Your task to perform on an android device: stop showing notifications on the lock screen Image 0: 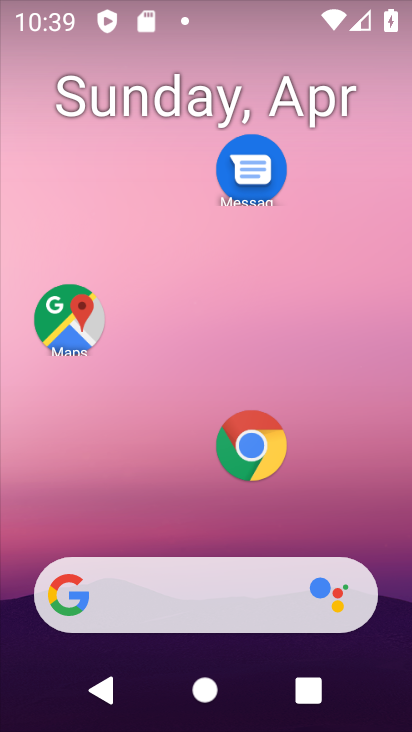
Step 0: press home button
Your task to perform on an android device: stop showing notifications on the lock screen Image 1: 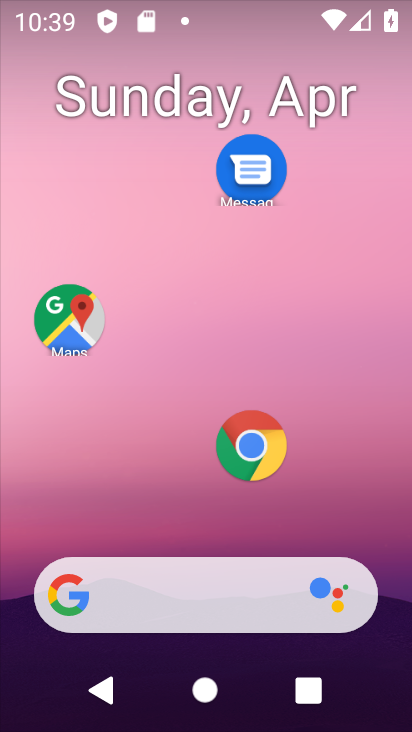
Step 1: drag from (173, 593) to (324, 83)
Your task to perform on an android device: stop showing notifications on the lock screen Image 2: 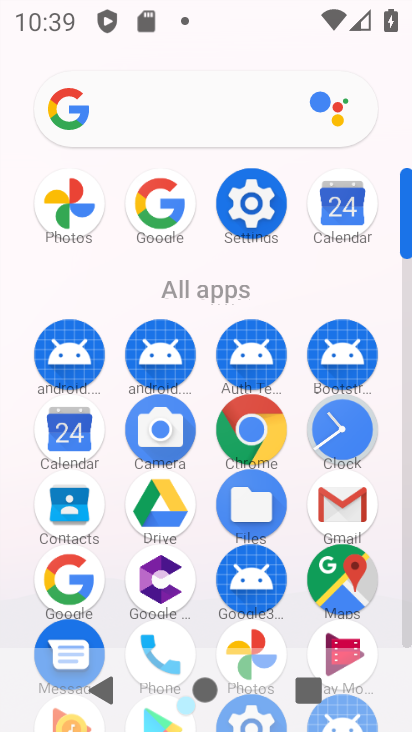
Step 2: click (264, 218)
Your task to perform on an android device: stop showing notifications on the lock screen Image 3: 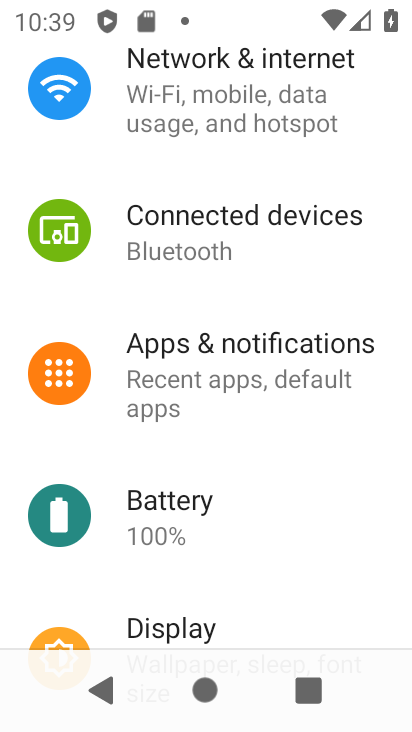
Step 3: click (262, 370)
Your task to perform on an android device: stop showing notifications on the lock screen Image 4: 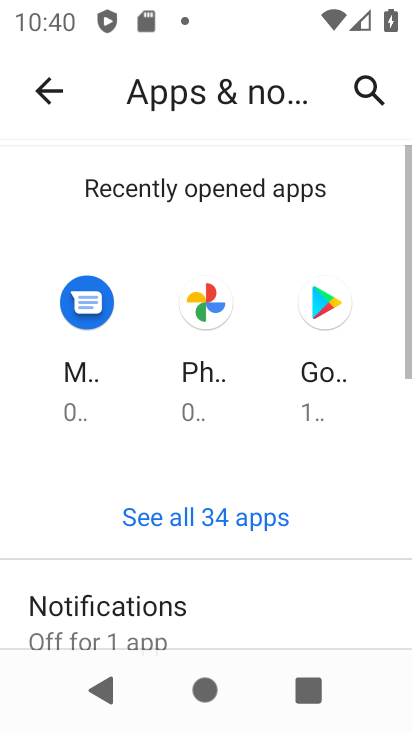
Step 4: drag from (149, 584) to (316, 222)
Your task to perform on an android device: stop showing notifications on the lock screen Image 5: 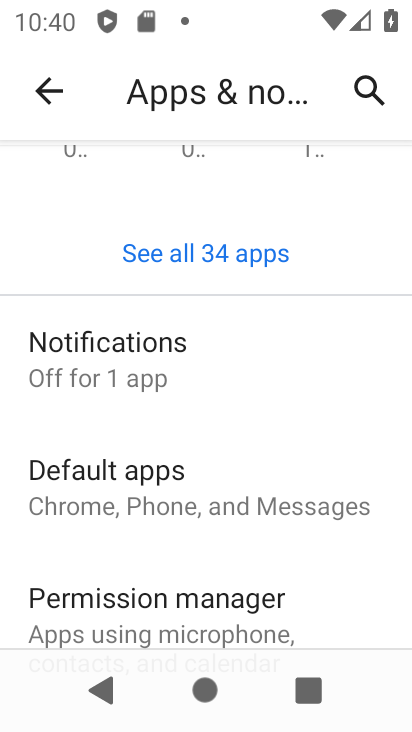
Step 5: click (171, 363)
Your task to perform on an android device: stop showing notifications on the lock screen Image 6: 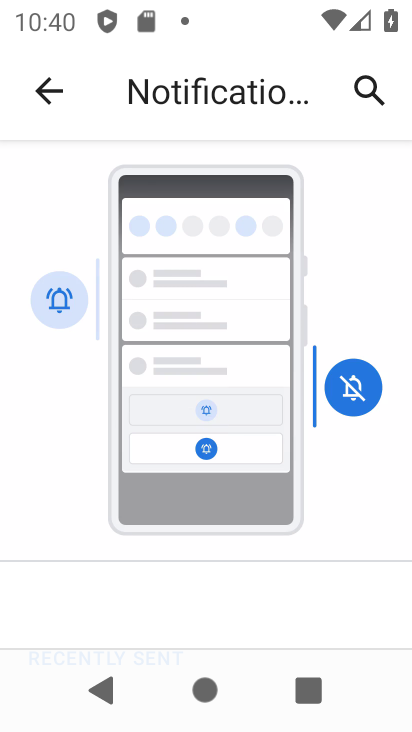
Step 6: drag from (203, 595) to (352, 148)
Your task to perform on an android device: stop showing notifications on the lock screen Image 7: 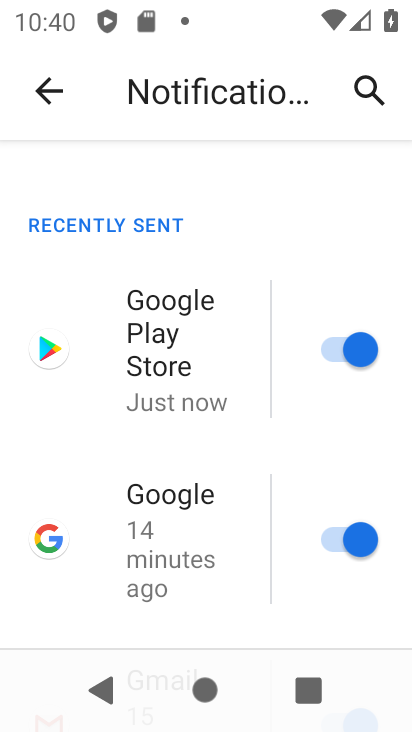
Step 7: drag from (185, 585) to (365, 151)
Your task to perform on an android device: stop showing notifications on the lock screen Image 8: 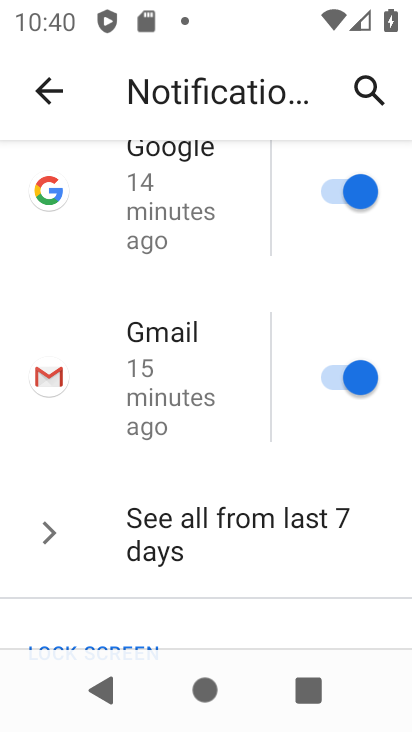
Step 8: drag from (231, 583) to (349, 148)
Your task to perform on an android device: stop showing notifications on the lock screen Image 9: 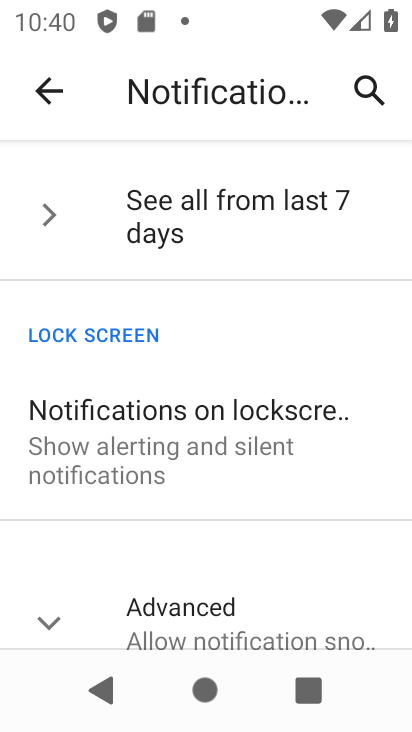
Step 9: click (228, 412)
Your task to perform on an android device: stop showing notifications on the lock screen Image 10: 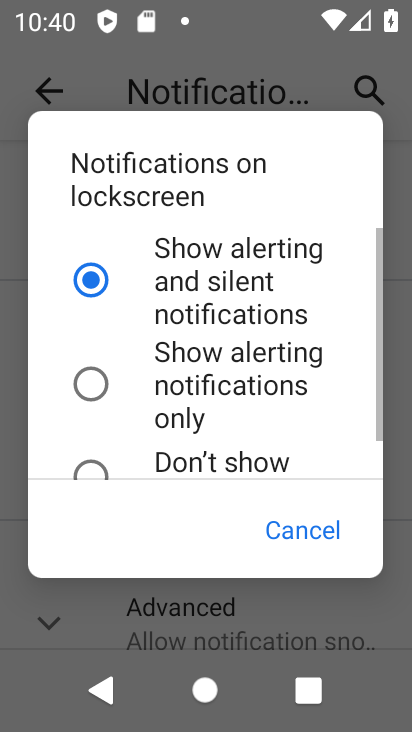
Step 10: drag from (144, 435) to (304, 168)
Your task to perform on an android device: stop showing notifications on the lock screen Image 11: 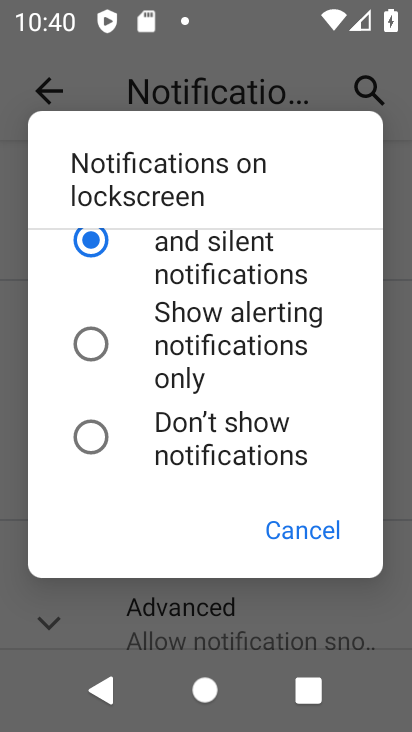
Step 11: click (95, 445)
Your task to perform on an android device: stop showing notifications on the lock screen Image 12: 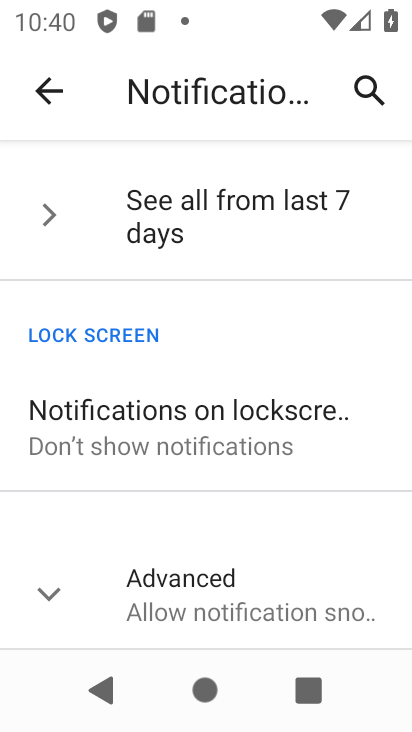
Step 12: task complete